Your task to perform on an android device: delete a single message in the gmail app Image 0: 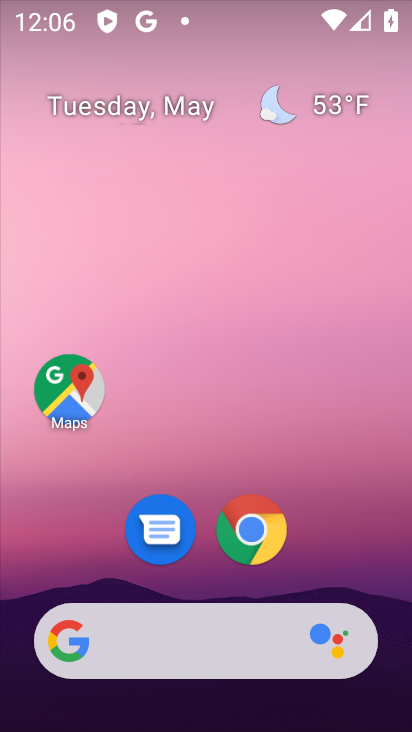
Step 0: drag from (195, 710) to (194, 228)
Your task to perform on an android device: delete a single message in the gmail app Image 1: 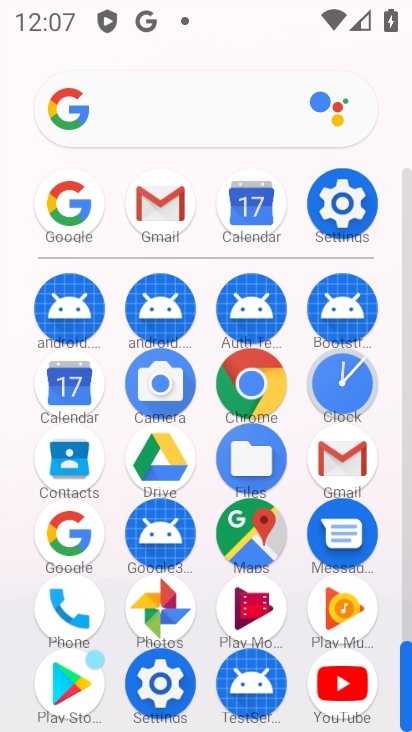
Step 1: click (347, 454)
Your task to perform on an android device: delete a single message in the gmail app Image 2: 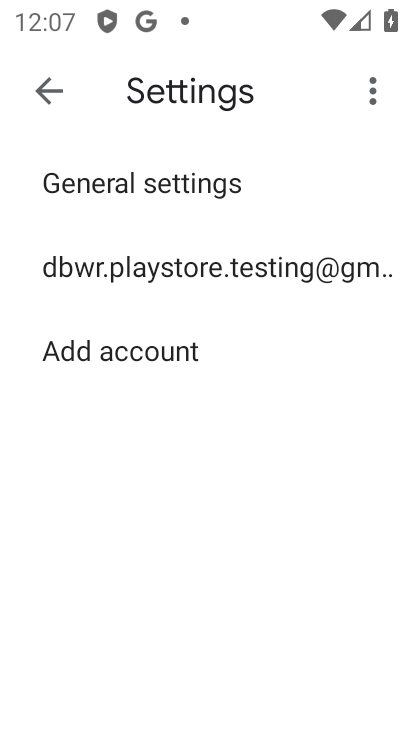
Step 2: click (50, 87)
Your task to perform on an android device: delete a single message in the gmail app Image 3: 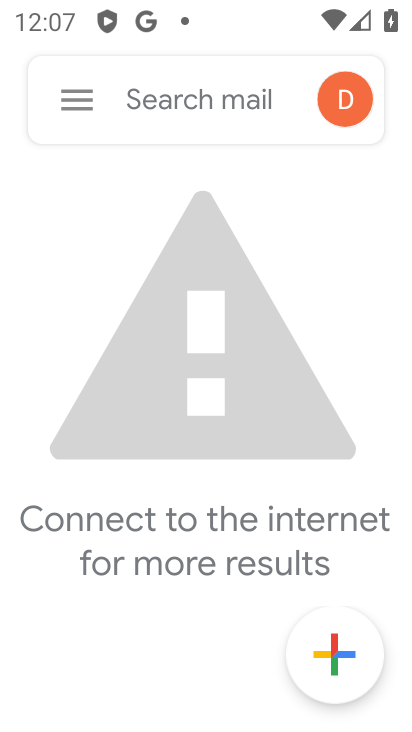
Step 3: task complete